Your task to perform on an android device: check google app version Image 0: 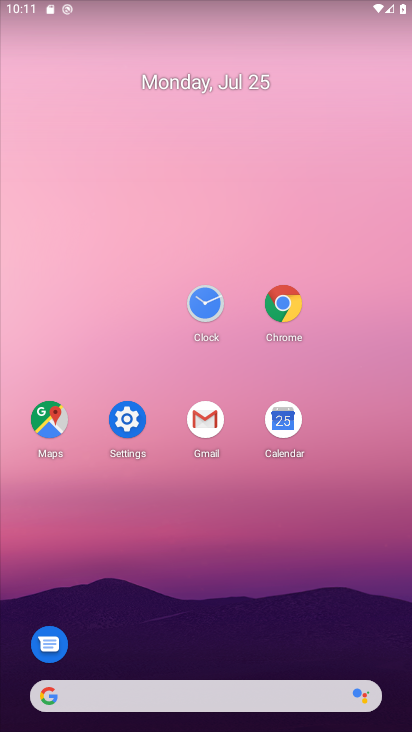
Step 0: drag from (394, 693) to (133, 0)
Your task to perform on an android device: check google app version Image 1: 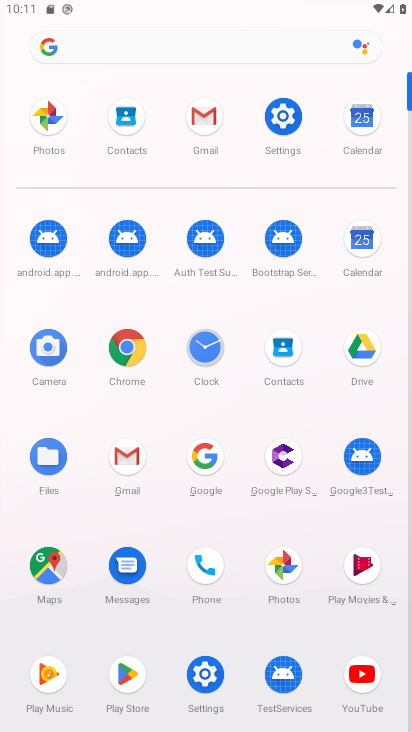
Step 1: click (201, 457)
Your task to perform on an android device: check google app version Image 2: 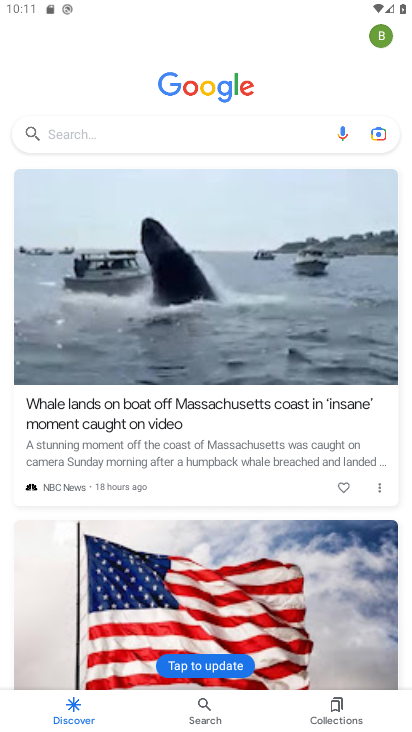
Step 2: click (334, 716)
Your task to perform on an android device: check google app version Image 3: 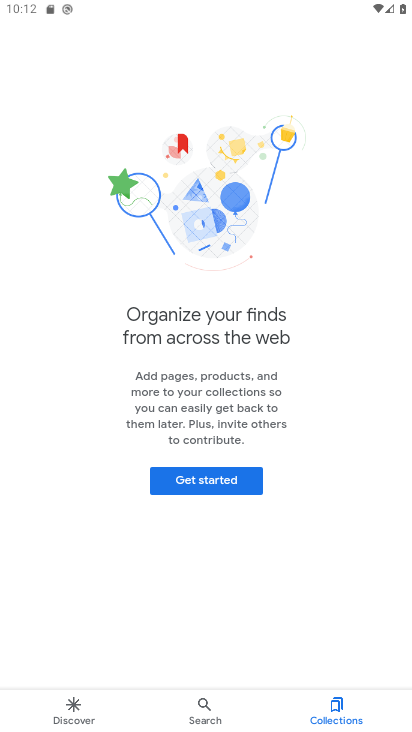
Step 3: click (241, 483)
Your task to perform on an android device: check google app version Image 4: 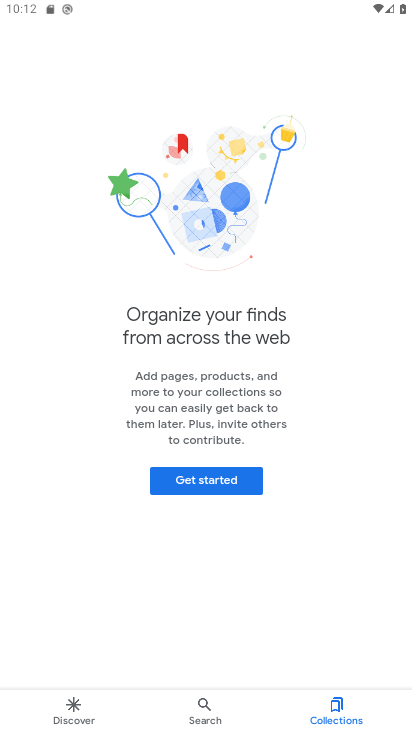
Step 4: click (262, 477)
Your task to perform on an android device: check google app version Image 5: 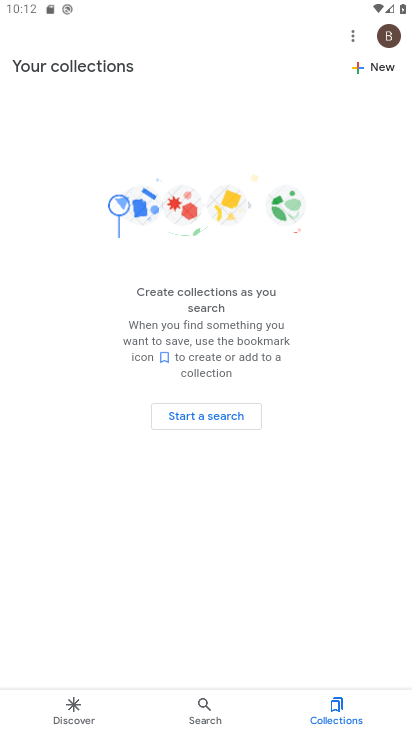
Step 5: task complete